Your task to perform on an android device: Check the weather Image 0: 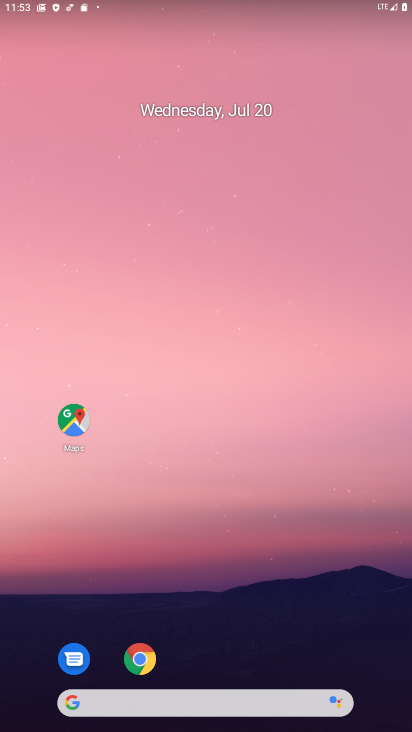
Step 0: drag from (303, 691) to (267, 240)
Your task to perform on an android device: Check the weather Image 1: 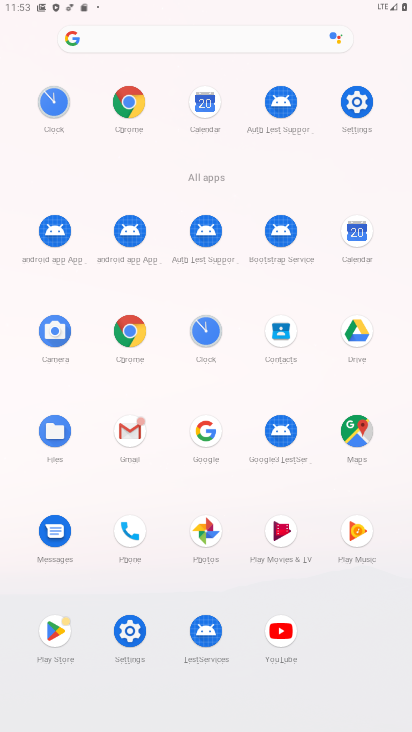
Step 1: click (123, 103)
Your task to perform on an android device: Check the weather Image 2: 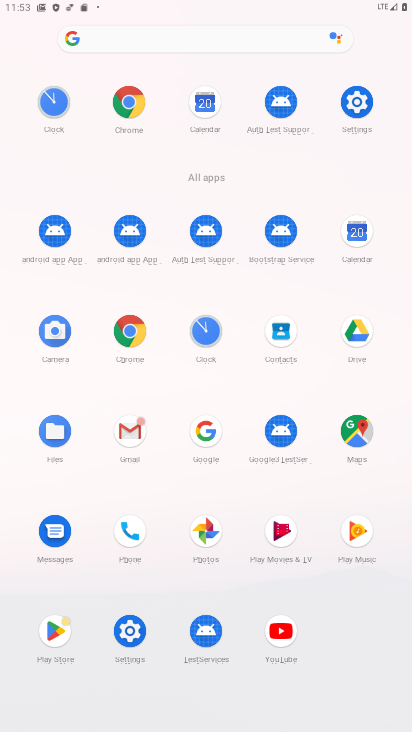
Step 2: click (122, 102)
Your task to perform on an android device: Check the weather Image 3: 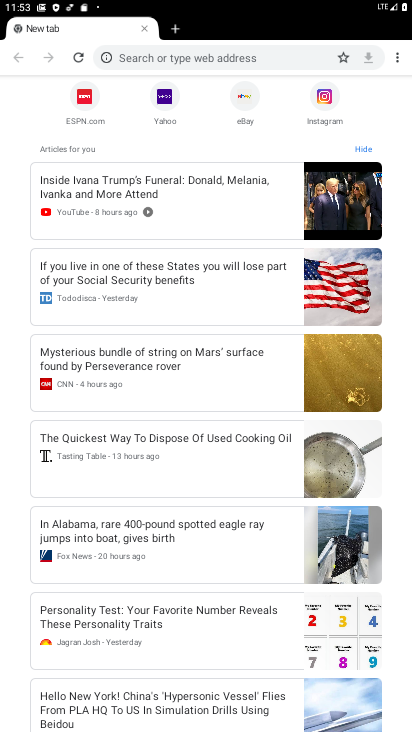
Step 3: click (153, 64)
Your task to perform on an android device: Check the weather Image 4: 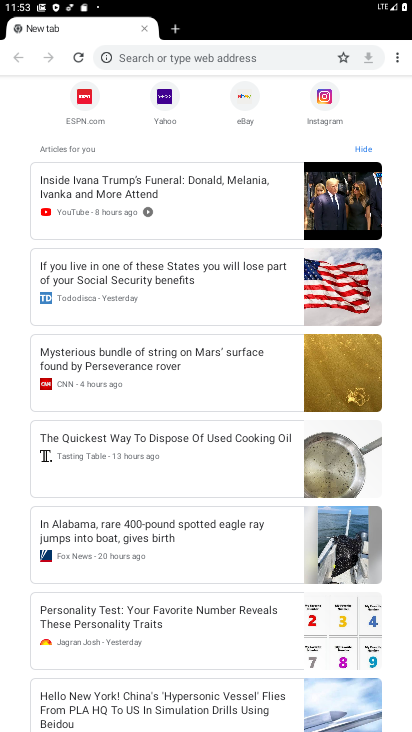
Step 4: click (157, 67)
Your task to perform on an android device: Check the weather Image 5: 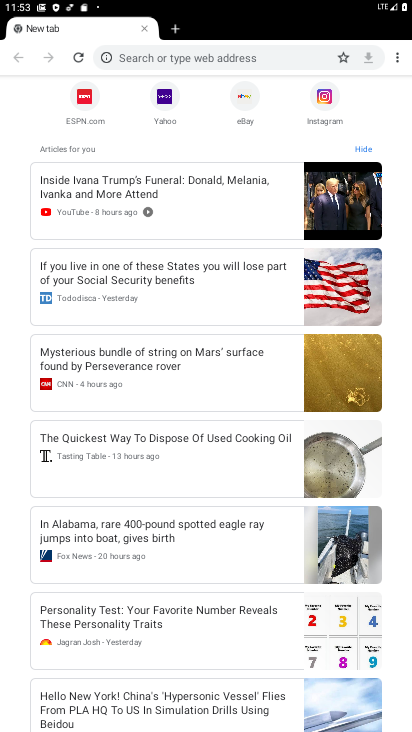
Step 5: click (127, 66)
Your task to perform on an android device: Check the weather Image 6: 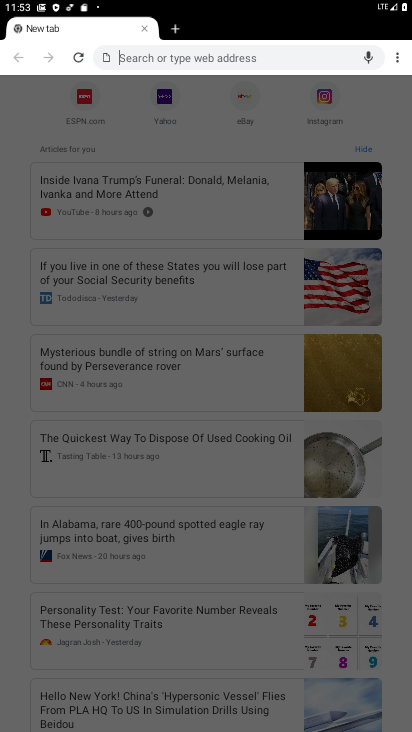
Step 6: click (127, 66)
Your task to perform on an android device: Check the weather Image 7: 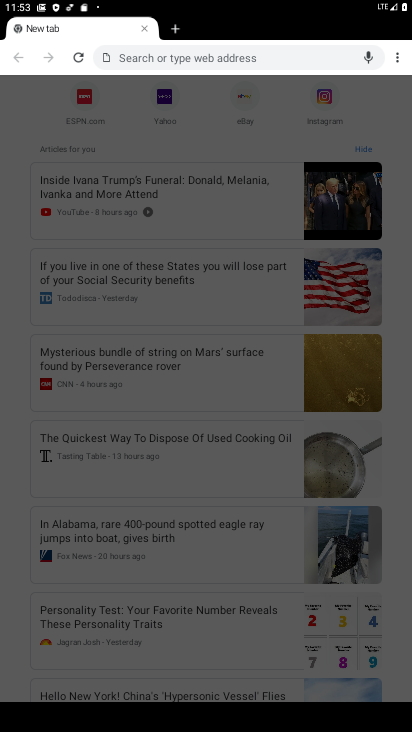
Step 7: type "weather?"
Your task to perform on an android device: Check the weather Image 8: 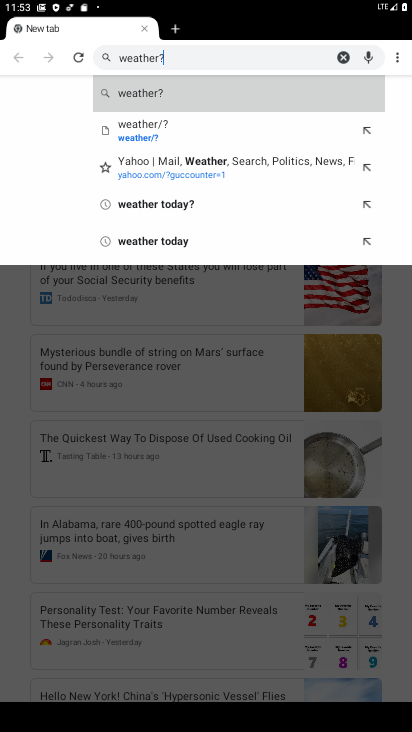
Step 8: click (133, 96)
Your task to perform on an android device: Check the weather Image 9: 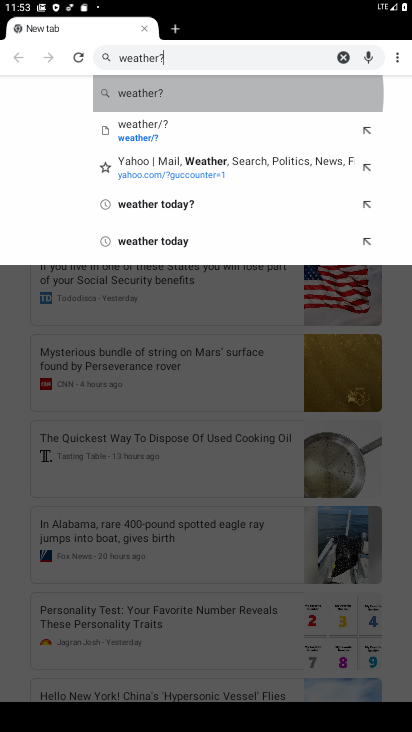
Step 9: click (139, 101)
Your task to perform on an android device: Check the weather Image 10: 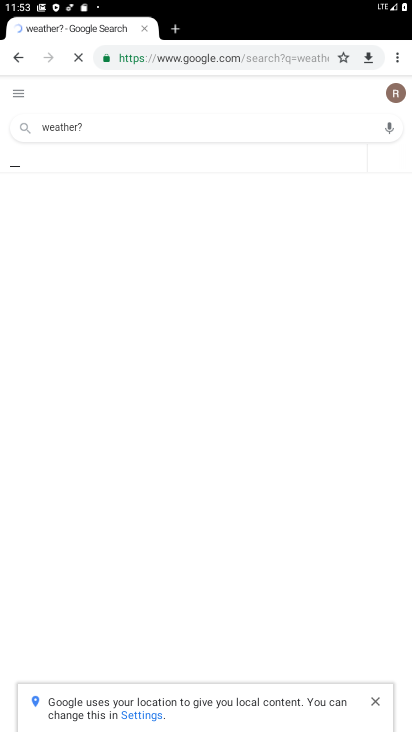
Step 10: task complete